Your task to perform on an android device: turn off data saver in the chrome app Image 0: 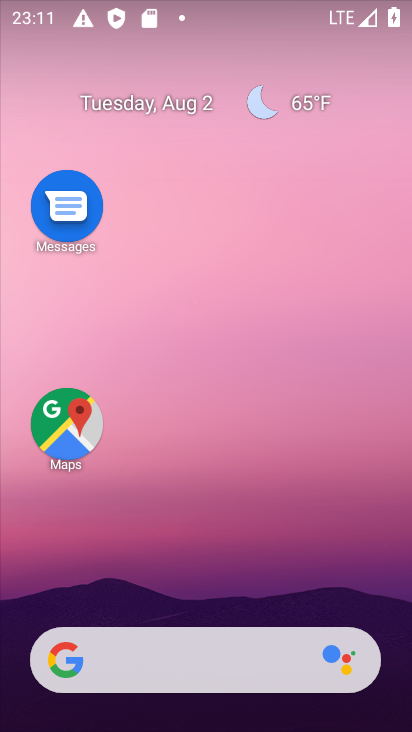
Step 0: drag from (296, 602) to (271, 243)
Your task to perform on an android device: turn off data saver in the chrome app Image 1: 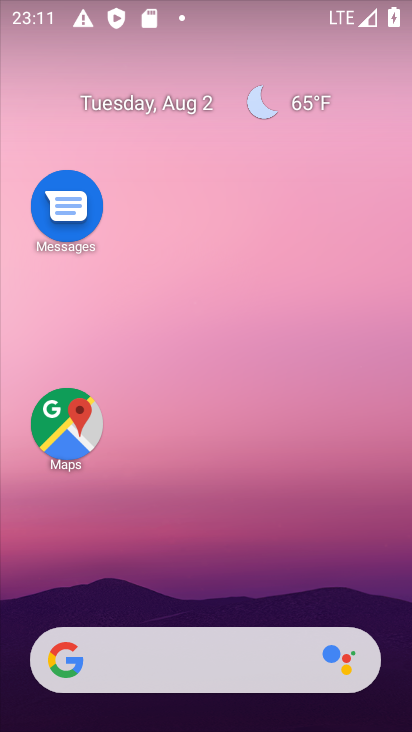
Step 1: drag from (221, 564) to (218, 136)
Your task to perform on an android device: turn off data saver in the chrome app Image 2: 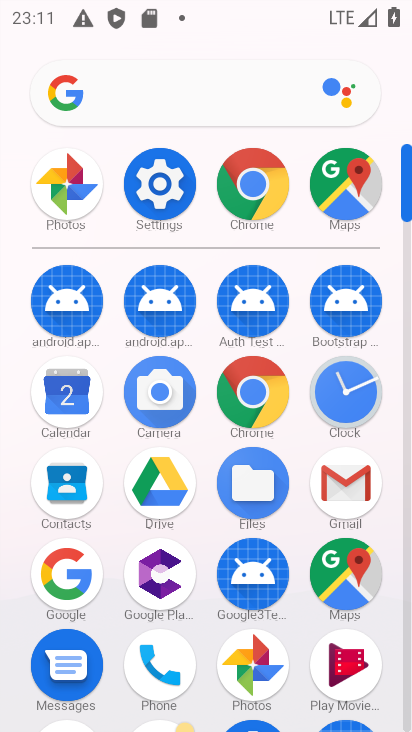
Step 2: drag from (227, 504) to (229, 203)
Your task to perform on an android device: turn off data saver in the chrome app Image 3: 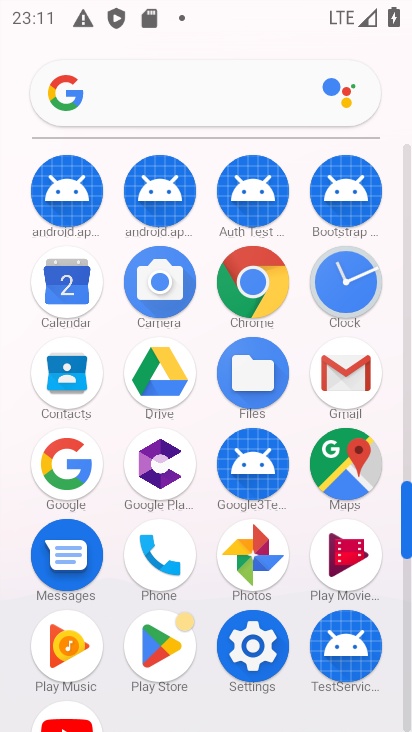
Step 3: click (239, 276)
Your task to perform on an android device: turn off data saver in the chrome app Image 4: 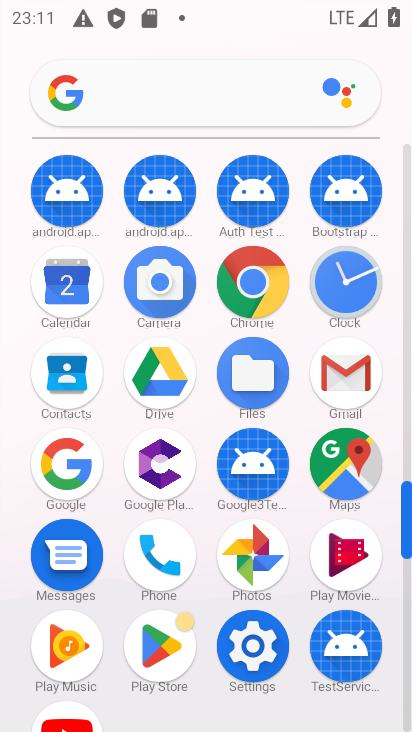
Step 4: click (239, 275)
Your task to perform on an android device: turn off data saver in the chrome app Image 5: 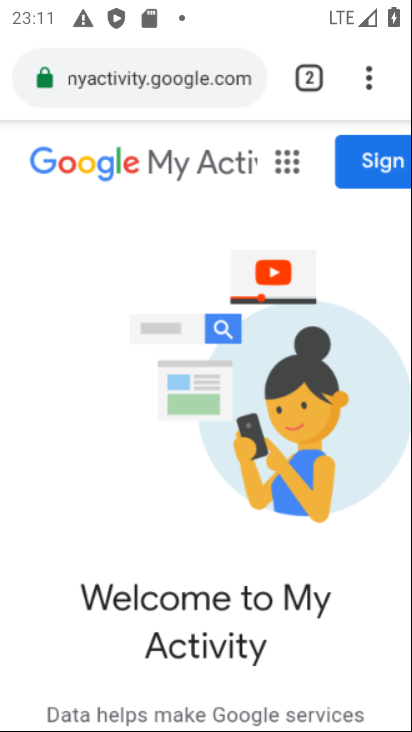
Step 5: click (248, 278)
Your task to perform on an android device: turn off data saver in the chrome app Image 6: 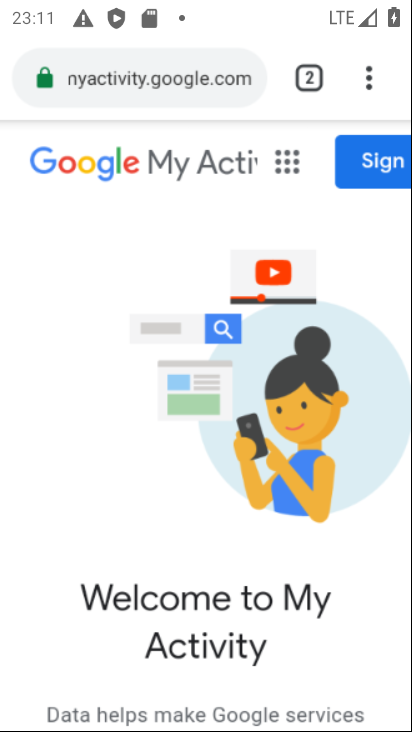
Step 6: click (252, 279)
Your task to perform on an android device: turn off data saver in the chrome app Image 7: 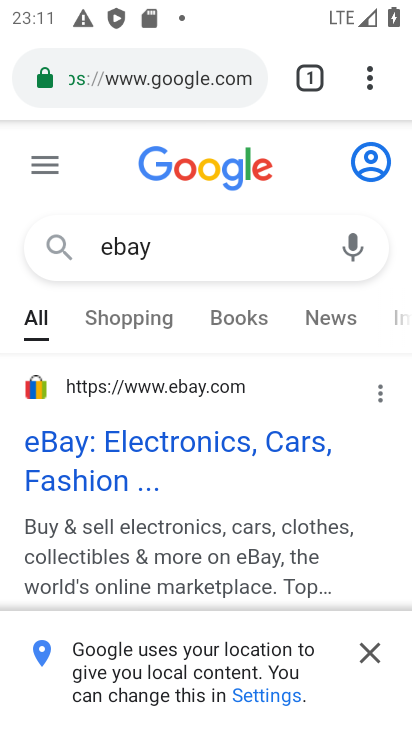
Step 7: drag from (369, 66) to (142, 255)
Your task to perform on an android device: turn off data saver in the chrome app Image 8: 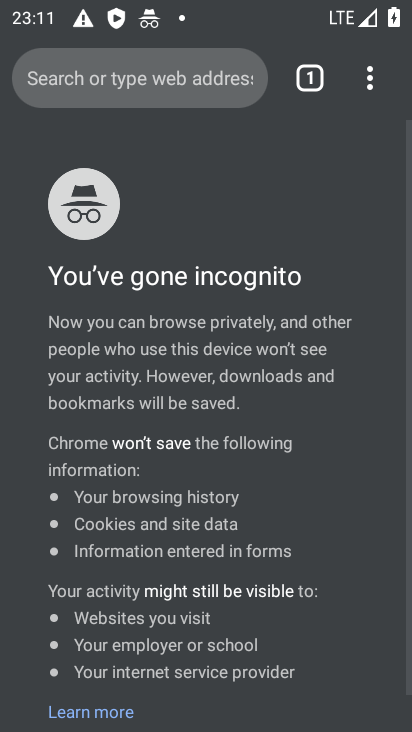
Step 8: drag from (370, 75) to (169, 535)
Your task to perform on an android device: turn off data saver in the chrome app Image 9: 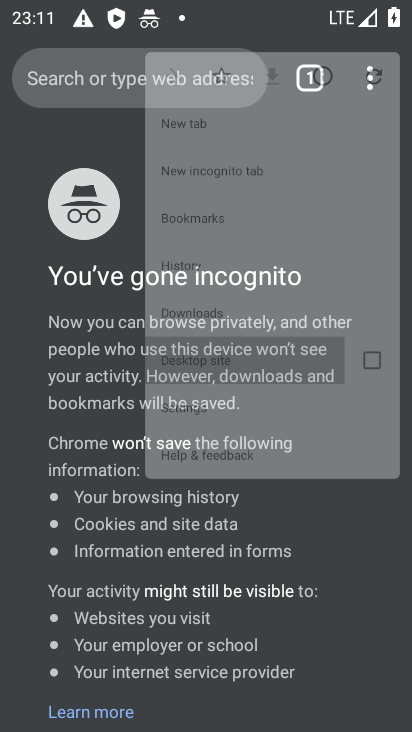
Step 9: drag from (197, 563) to (211, 154)
Your task to perform on an android device: turn off data saver in the chrome app Image 10: 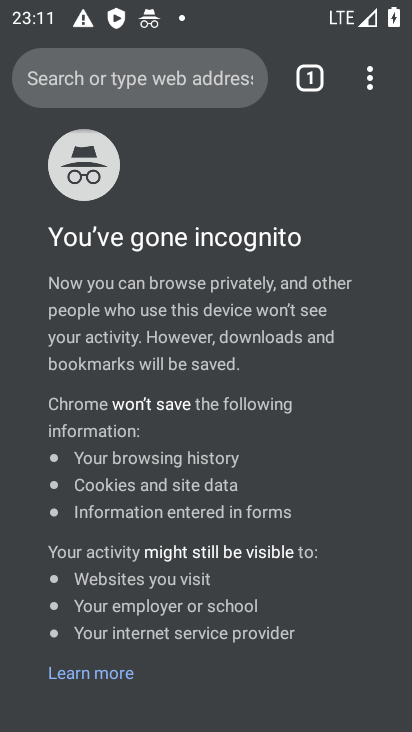
Step 10: drag from (372, 85) to (90, 587)
Your task to perform on an android device: turn off data saver in the chrome app Image 11: 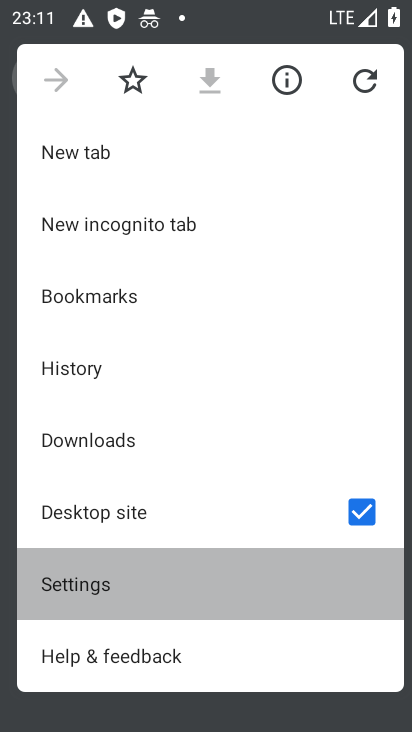
Step 11: click (82, 588)
Your task to perform on an android device: turn off data saver in the chrome app Image 12: 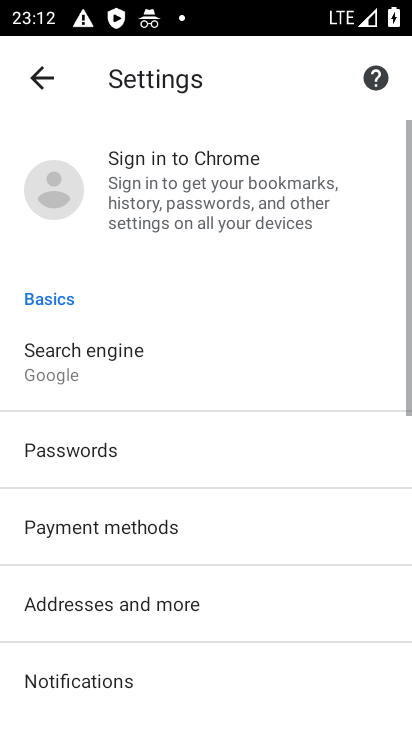
Step 12: drag from (126, 417) to (118, 153)
Your task to perform on an android device: turn off data saver in the chrome app Image 13: 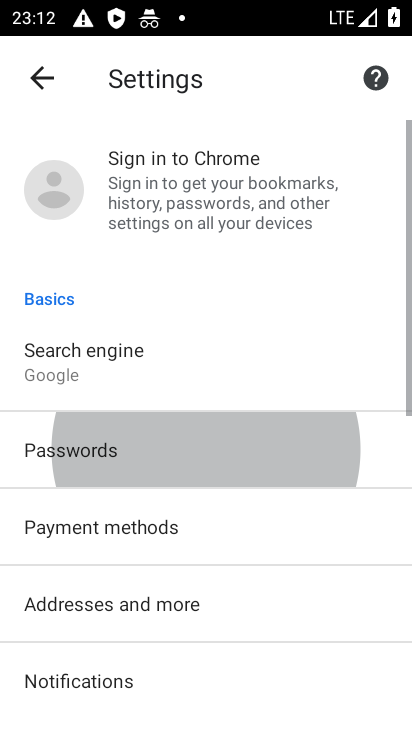
Step 13: drag from (121, 542) to (67, 114)
Your task to perform on an android device: turn off data saver in the chrome app Image 14: 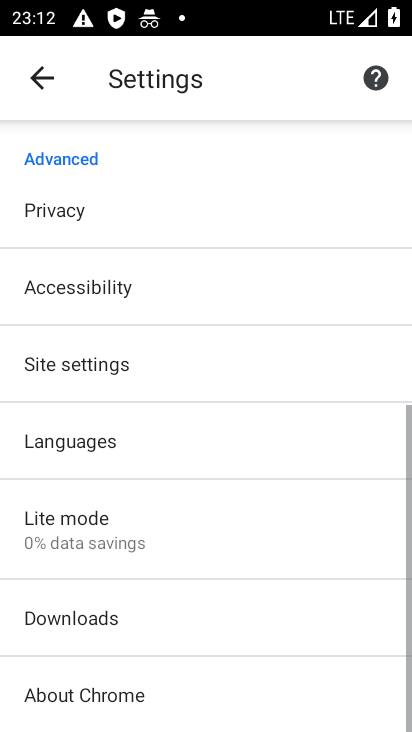
Step 14: drag from (120, 477) to (111, 190)
Your task to perform on an android device: turn off data saver in the chrome app Image 15: 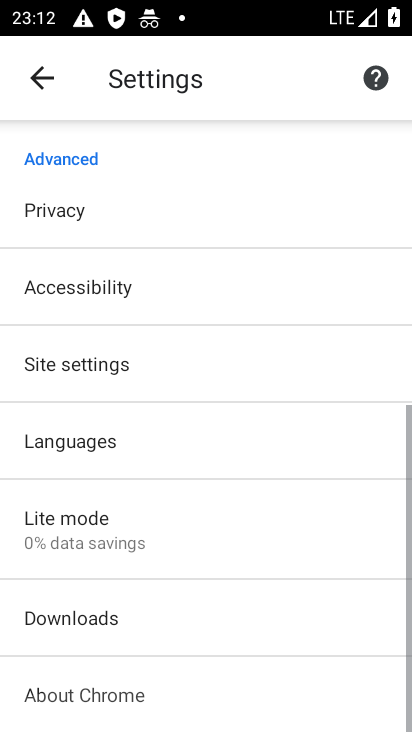
Step 15: drag from (131, 462) to (131, 255)
Your task to perform on an android device: turn off data saver in the chrome app Image 16: 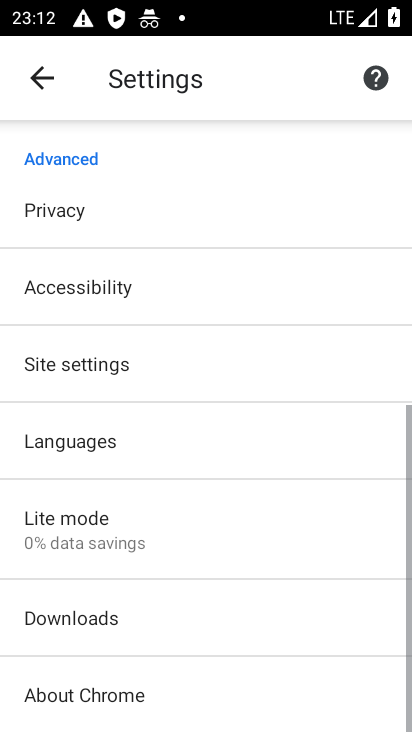
Step 16: click (81, 517)
Your task to perform on an android device: turn off data saver in the chrome app Image 17: 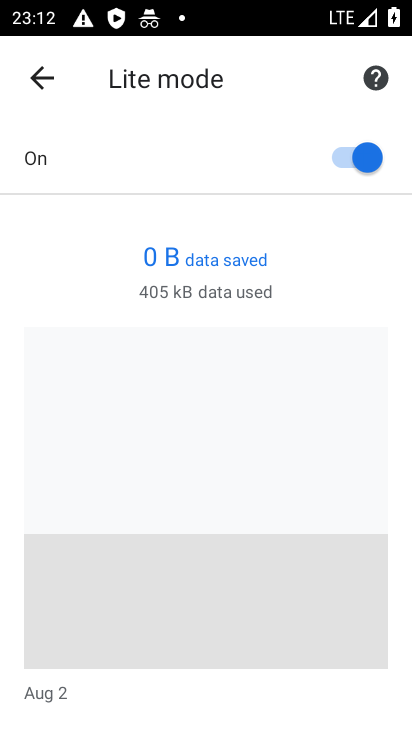
Step 17: click (367, 150)
Your task to perform on an android device: turn off data saver in the chrome app Image 18: 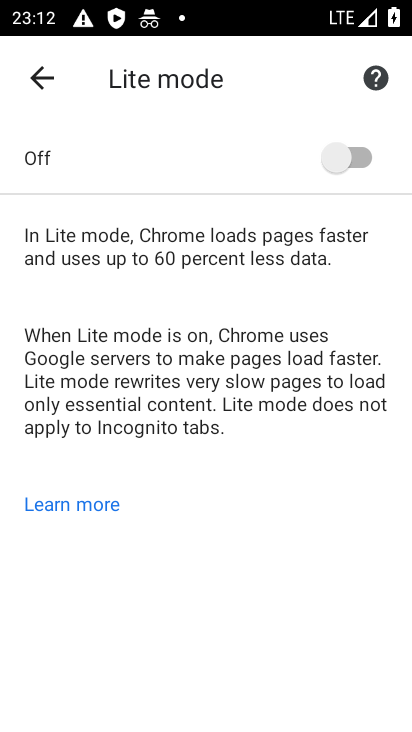
Step 18: task complete